Your task to perform on an android device: Open Yahoo.com Image 0: 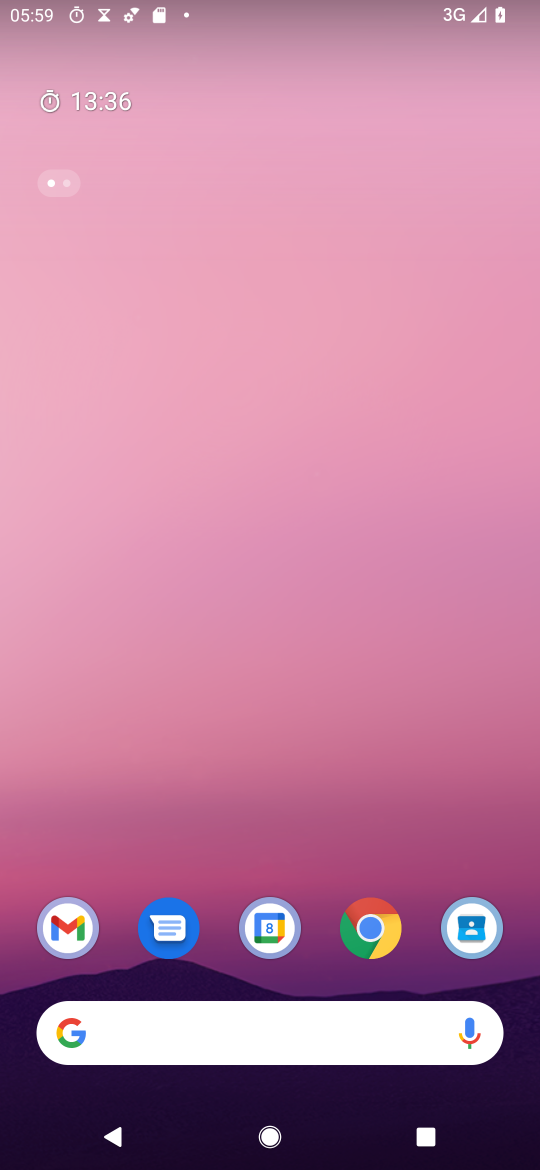
Step 0: click (382, 938)
Your task to perform on an android device: Open Yahoo.com Image 1: 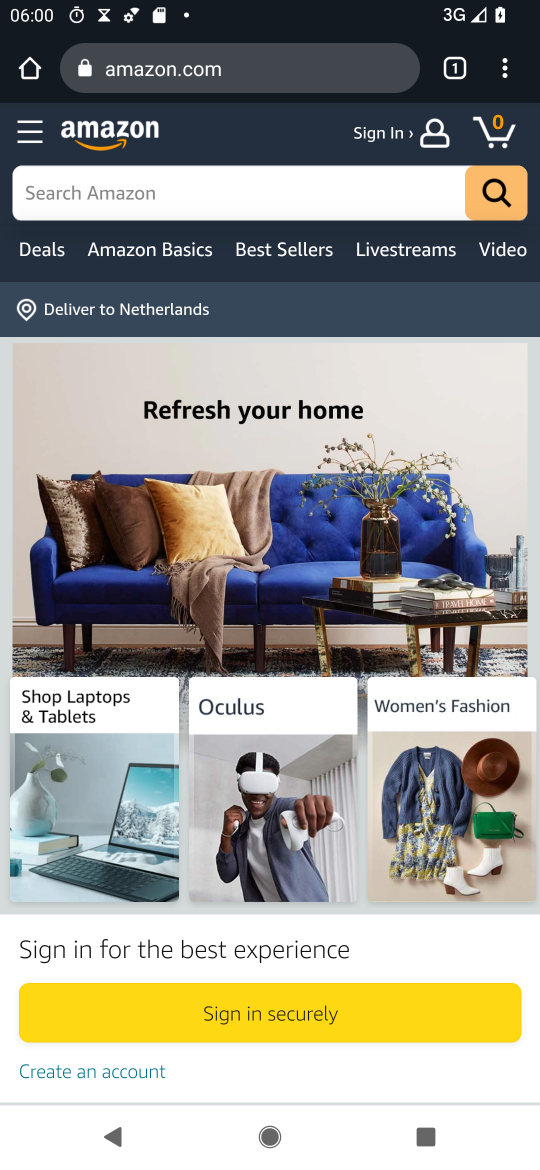
Step 1: click (262, 56)
Your task to perform on an android device: Open Yahoo.com Image 2: 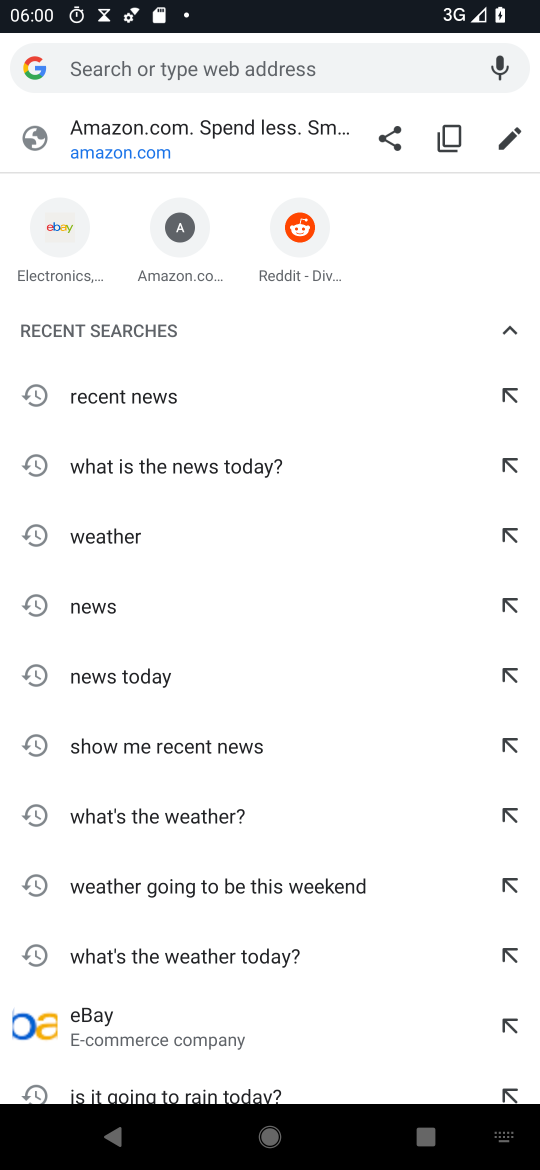
Step 2: type "yahoo.com"
Your task to perform on an android device: Open Yahoo.com Image 3: 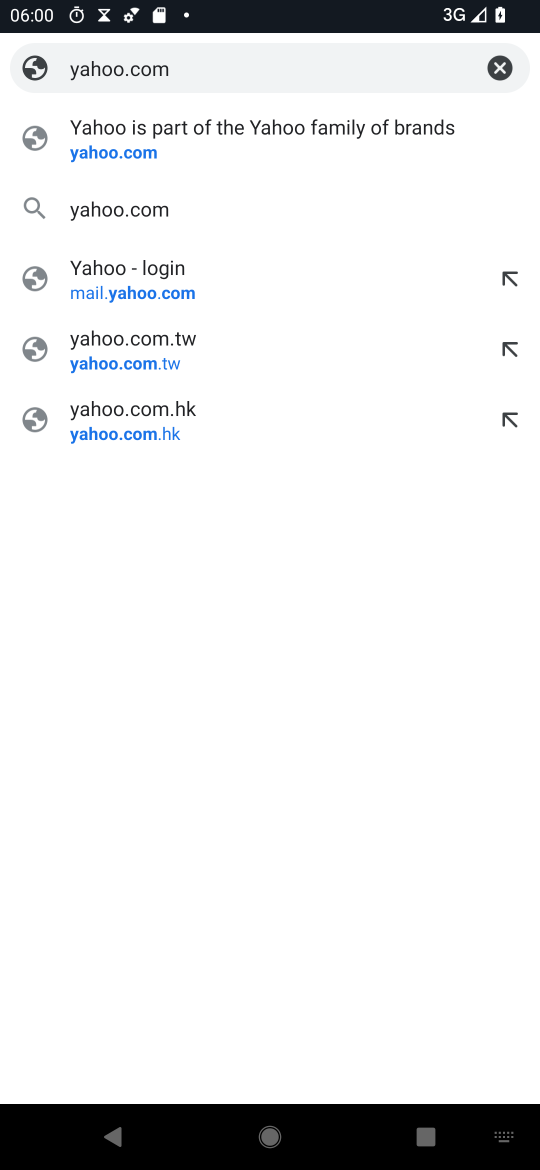
Step 3: click (146, 131)
Your task to perform on an android device: Open Yahoo.com Image 4: 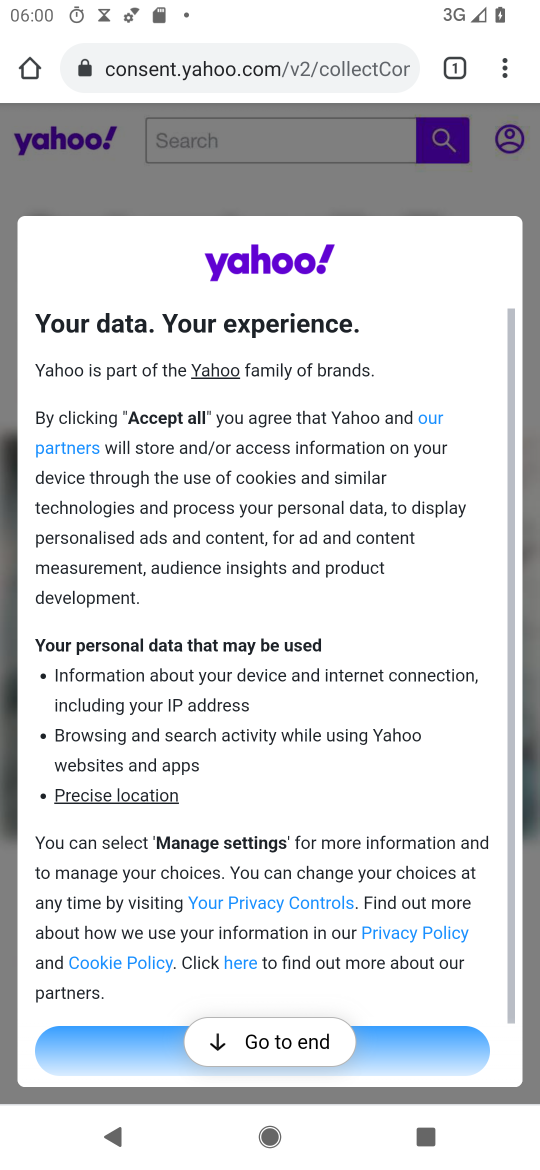
Step 4: task complete